Your task to perform on an android device: See recent photos Image 0: 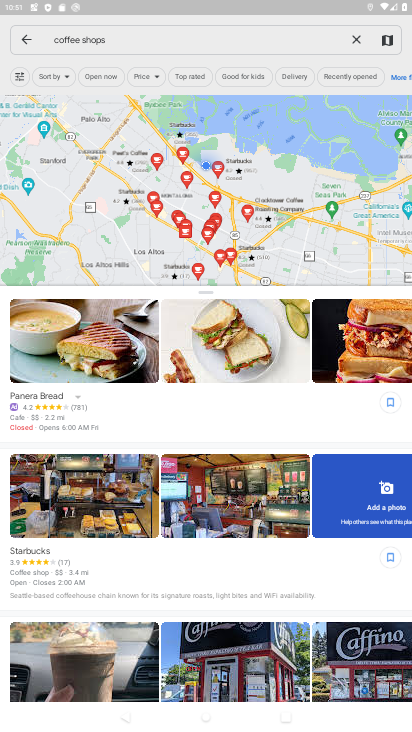
Step 0: press home button
Your task to perform on an android device: See recent photos Image 1: 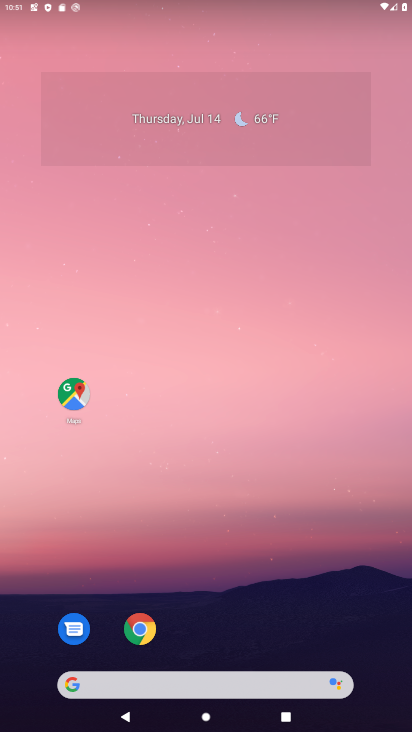
Step 1: drag from (257, 614) to (260, 108)
Your task to perform on an android device: See recent photos Image 2: 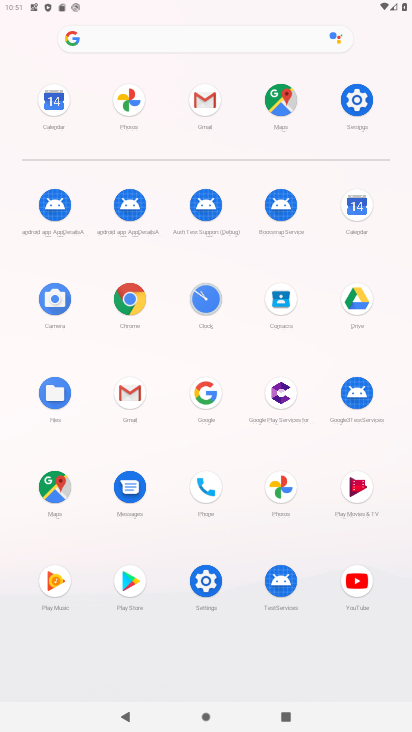
Step 2: click (277, 486)
Your task to perform on an android device: See recent photos Image 3: 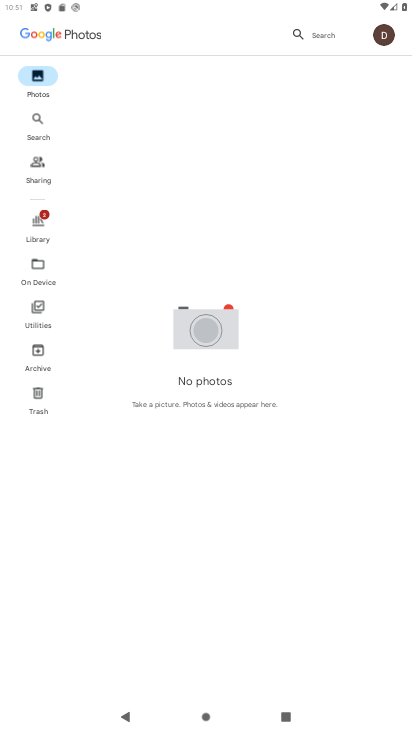
Step 3: task complete